Your task to perform on an android device: empty trash in the gmail app Image 0: 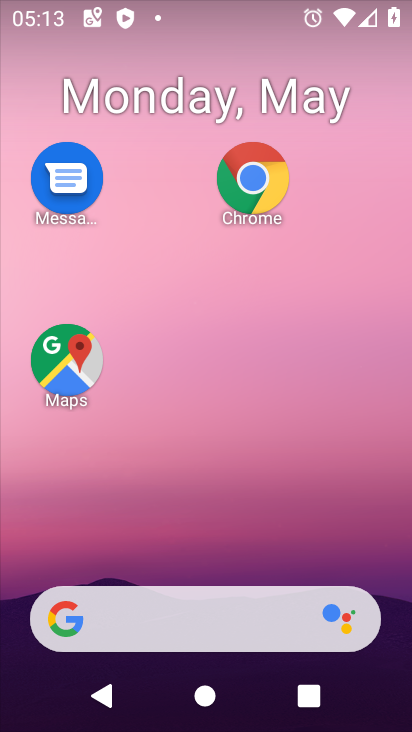
Step 0: drag from (169, 549) to (151, 80)
Your task to perform on an android device: empty trash in the gmail app Image 1: 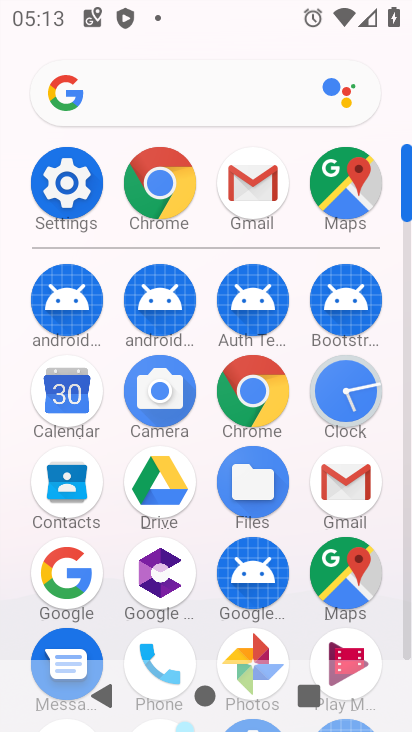
Step 1: click (354, 522)
Your task to perform on an android device: empty trash in the gmail app Image 2: 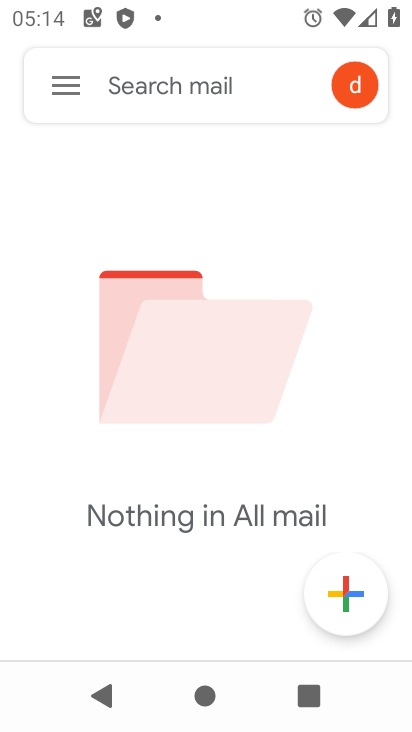
Step 2: click (58, 84)
Your task to perform on an android device: empty trash in the gmail app Image 3: 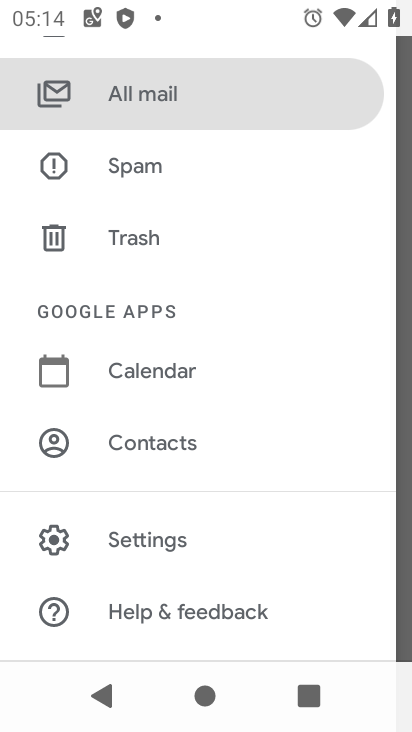
Step 3: click (140, 242)
Your task to perform on an android device: empty trash in the gmail app Image 4: 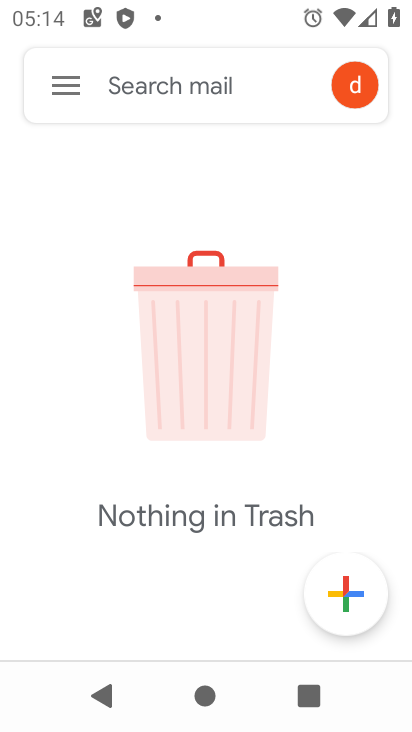
Step 4: task complete